Your task to perform on an android device: Open the web browser Image 0: 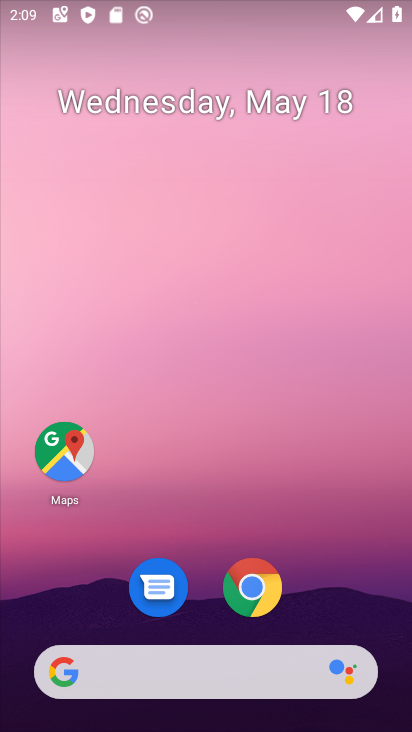
Step 0: click (254, 603)
Your task to perform on an android device: Open the web browser Image 1: 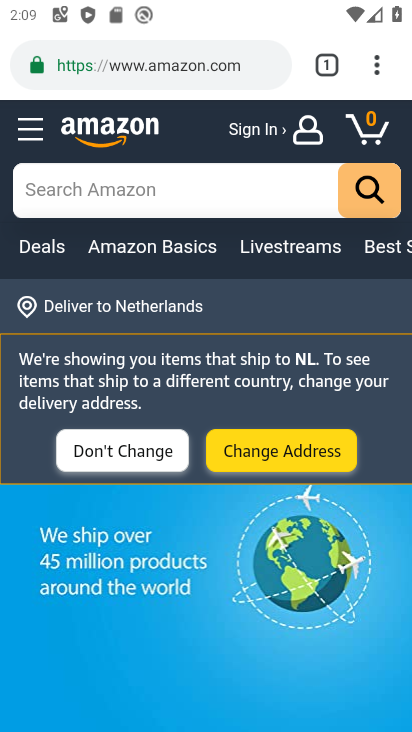
Step 1: task complete